Your task to perform on an android device: Go to Google Image 0: 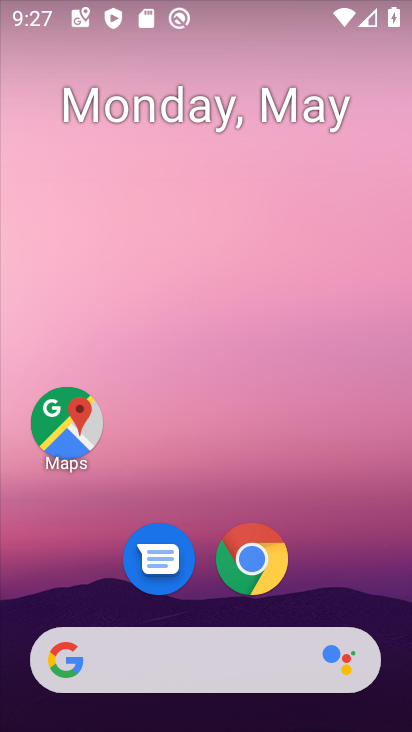
Step 0: click (66, 652)
Your task to perform on an android device: Go to Google Image 1: 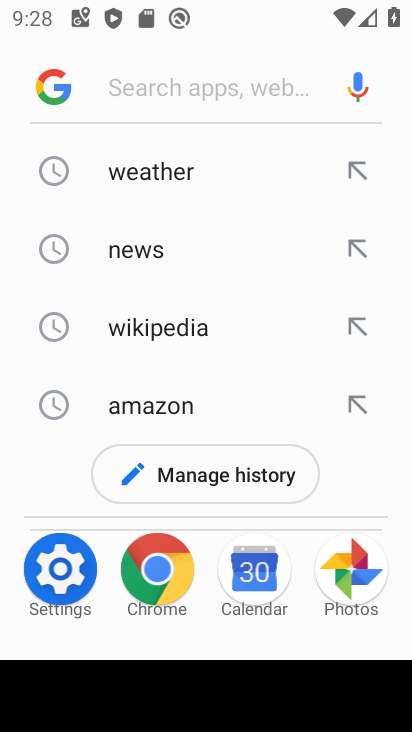
Step 1: click (46, 101)
Your task to perform on an android device: Go to Google Image 2: 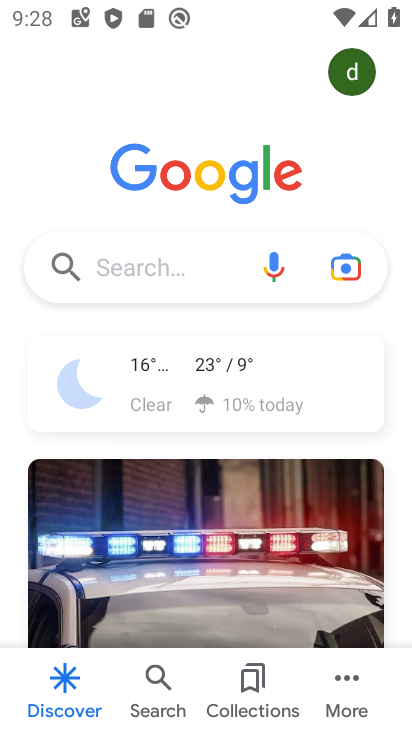
Step 2: task complete